Your task to perform on an android device: toggle wifi Image 0: 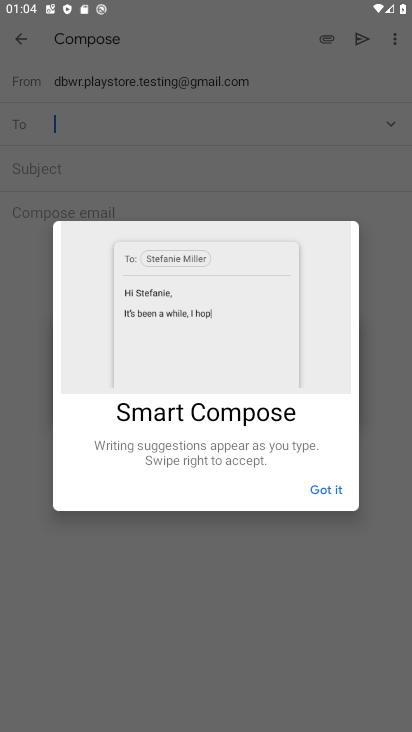
Step 0: press home button
Your task to perform on an android device: toggle wifi Image 1: 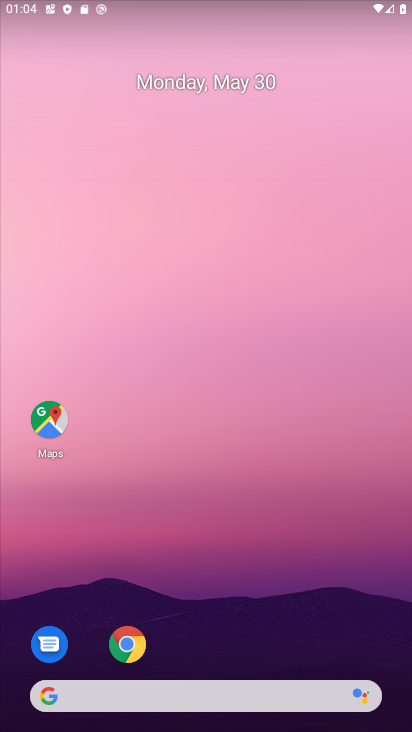
Step 1: drag from (281, 639) to (325, 160)
Your task to perform on an android device: toggle wifi Image 2: 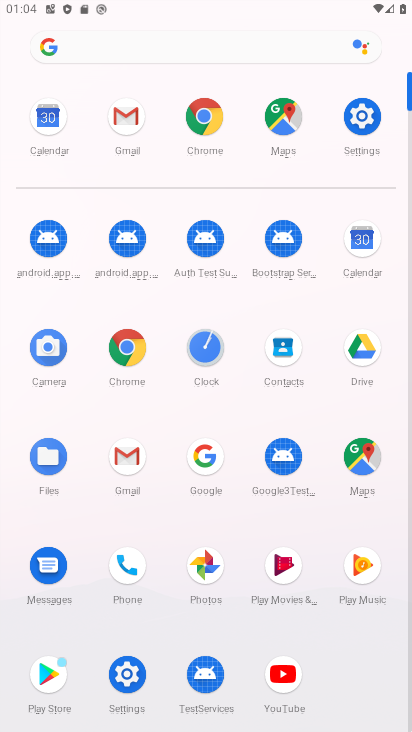
Step 2: click (107, 698)
Your task to perform on an android device: toggle wifi Image 3: 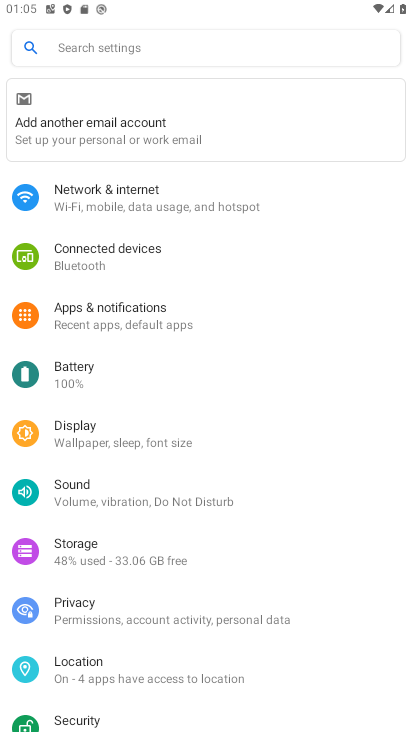
Step 3: click (199, 214)
Your task to perform on an android device: toggle wifi Image 4: 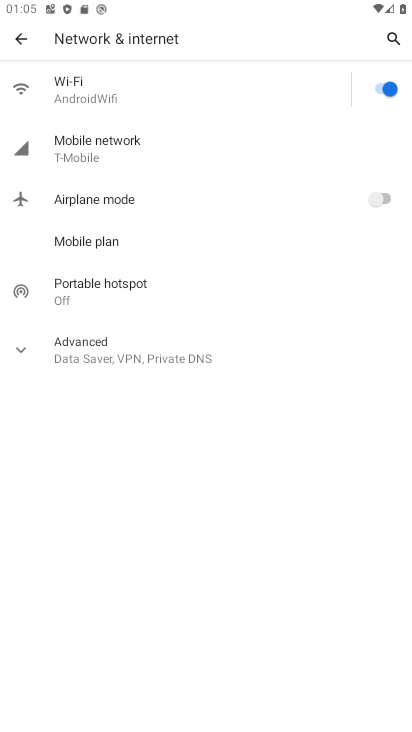
Step 4: click (376, 93)
Your task to perform on an android device: toggle wifi Image 5: 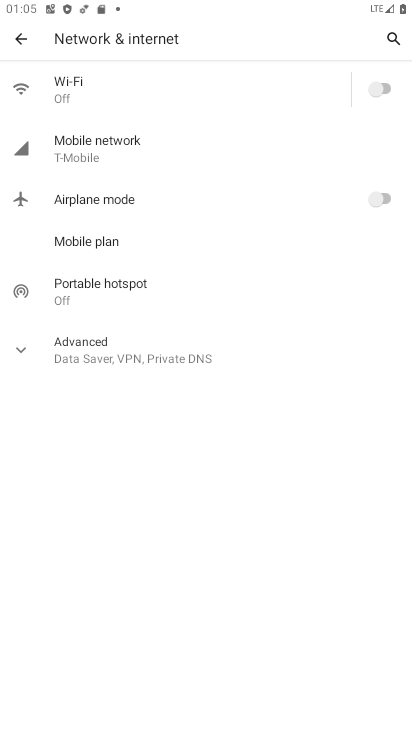
Step 5: task complete